Your task to perform on an android device: add a label to a message in the gmail app Image 0: 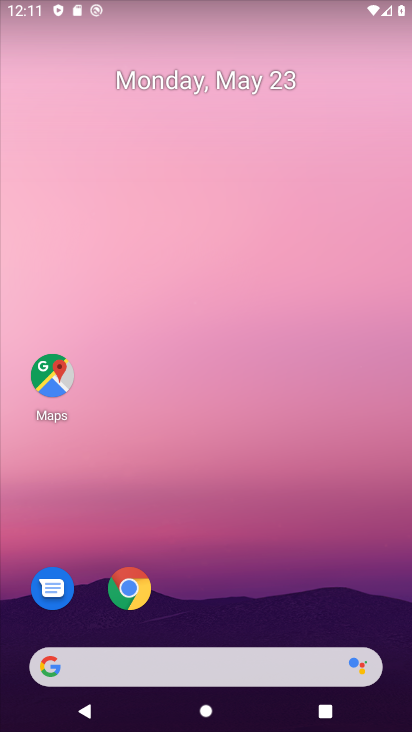
Step 0: drag from (223, 726) to (156, 12)
Your task to perform on an android device: add a label to a message in the gmail app Image 1: 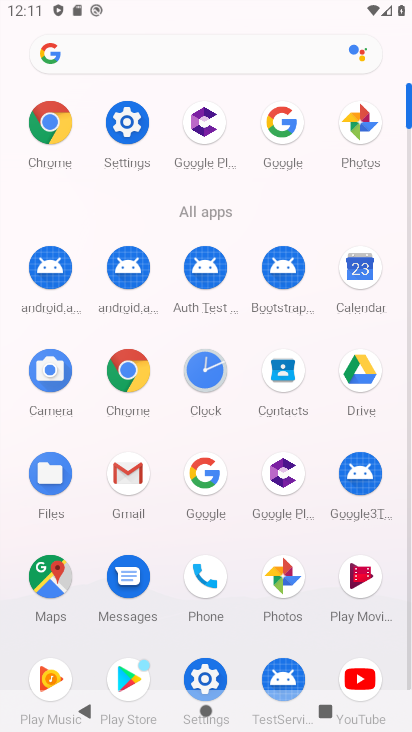
Step 1: click (132, 478)
Your task to perform on an android device: add a label to a message in the gmail app Image 2: 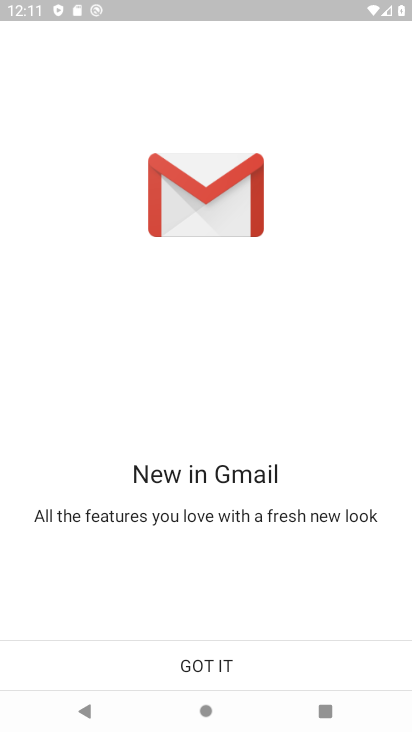
Step 2: click (207, 654)
Your task to perform on an android device: add a label to a message in the gmail app Image 3: 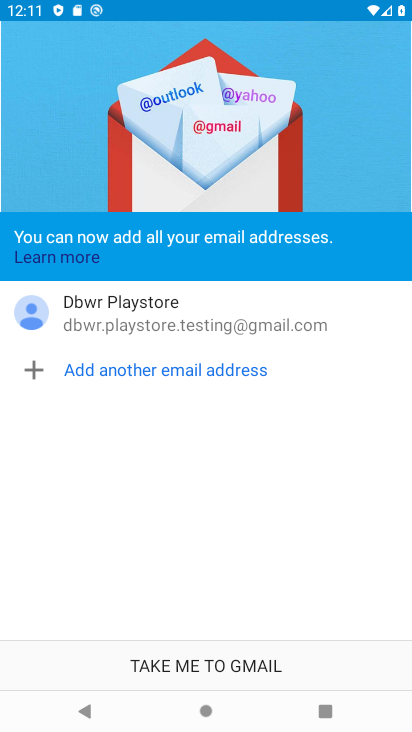
Step 3: click (208, 660)
Your task to perform on an android device: add a label to a message in the gmail app Image 4: 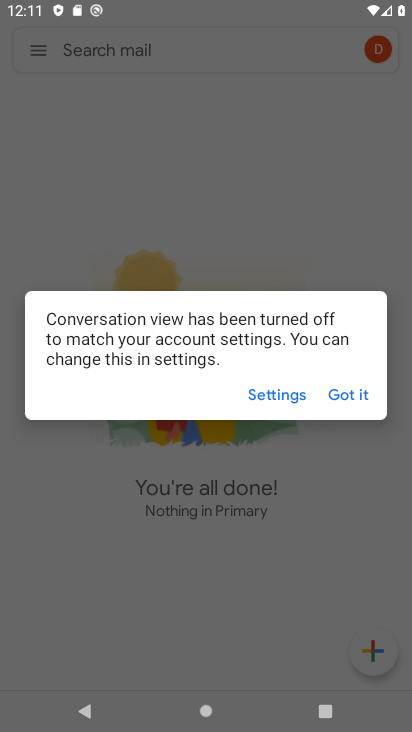
Step 4: click (355, 393)
Your task to perform on an android device: add a label to a message in the gmail app Image 5: 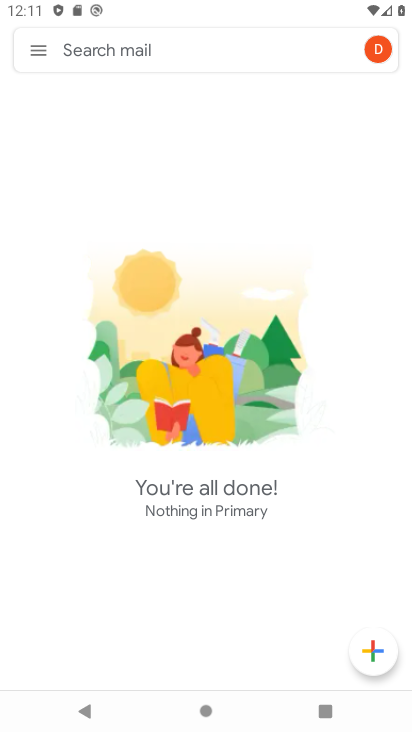
Step 5: task complete